Your task to perform on an android device: turn vacation reply on in the gmail app Image 0: 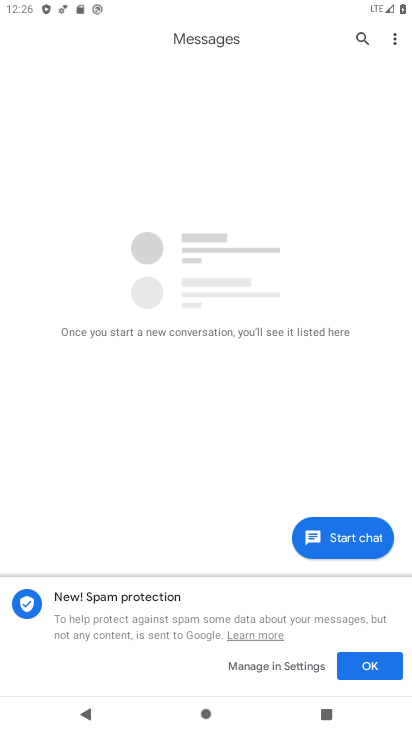
Step 0: press home button
Your task to perform on an android device: turn vacation reply on in the gmail app Image 1: 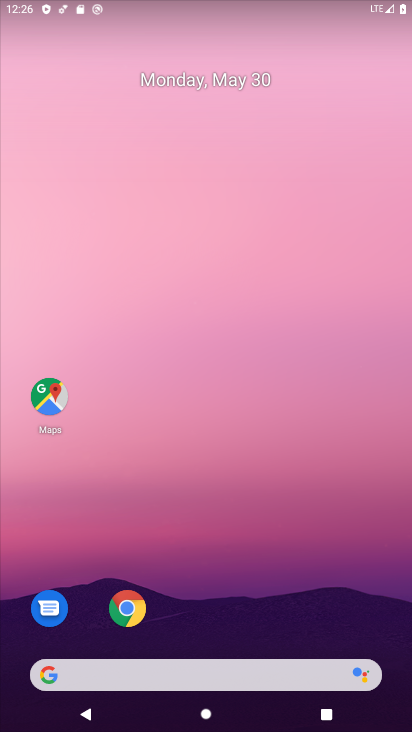
Step 1: drag from (202, 625) to (199, 3)
Your task to perform on an android device: turn vacation reply on in the gmail app Image 2: 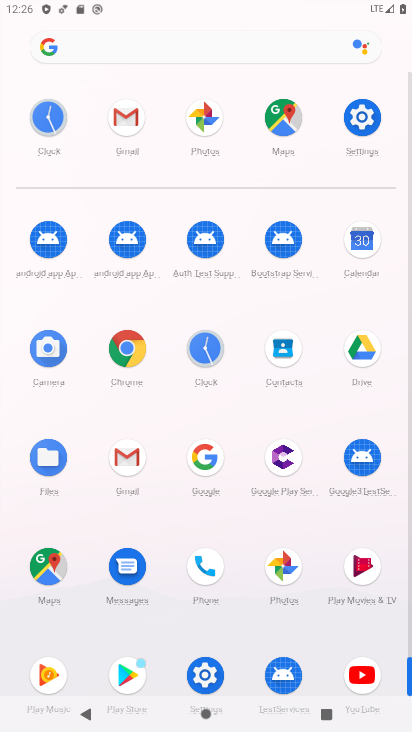
Step 2: click (123, 482)
Your task to perform on an android device: turn vacation reply on in the gmail app Image 3: 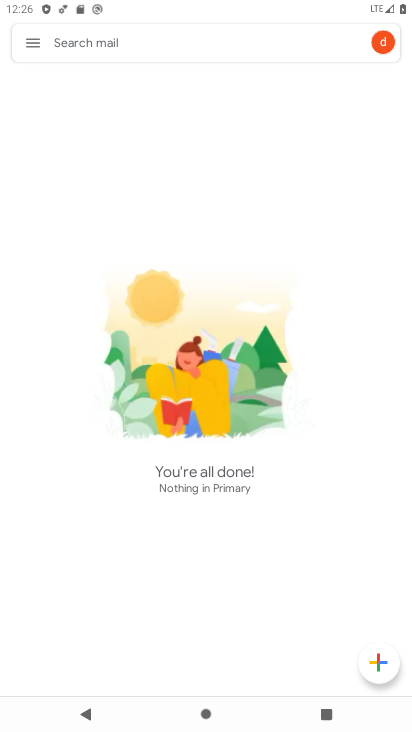
Step 3: click (33, 36)
Your task to perform on an android device: turn vacation reply on in the gmail app Image 4: 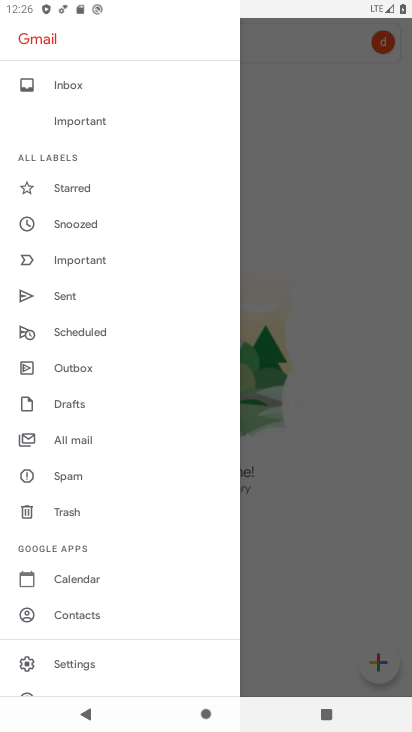
Step 4: drag from (115, 610) to (221, 72)
Your task to perform on an android device: turn vacation reply on in the gmail app Image 5: 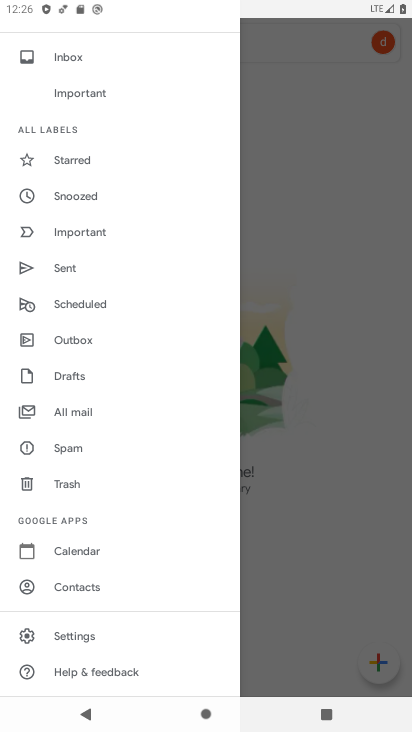
Step 5: click (89, 633)
Your task to perform on an android device: turn vacation reply on in the gmail app Image 6: 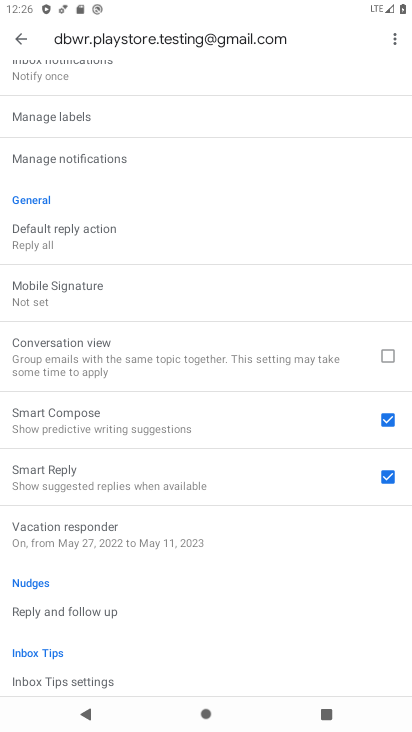
Step 6: click (125, 535)
Your task to perform on an android device: turn vacation reply on in the gmail app Image 7: 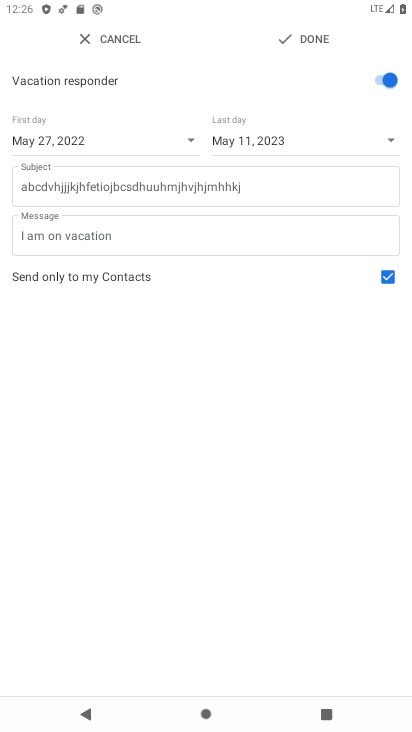
Step 7: click (379, 79)
Your task to perform on an android device: turn vacation reply on in the gmail app Image 8: 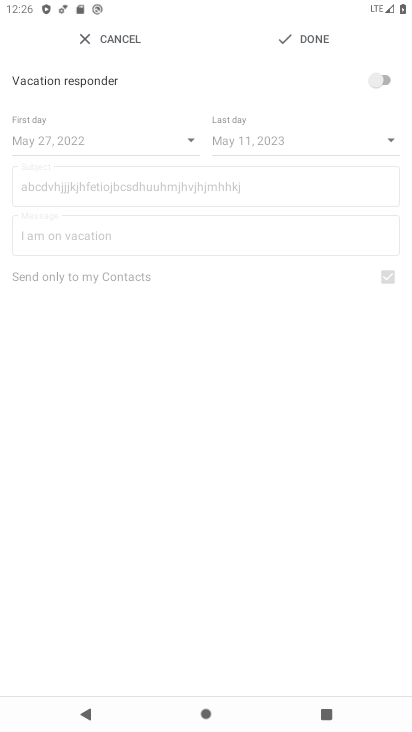
Step 8: task complete